Your task to perform on an android device: open app "Adobe Acrobat Reader" (install if not already installed) and go to login screen Image 0: 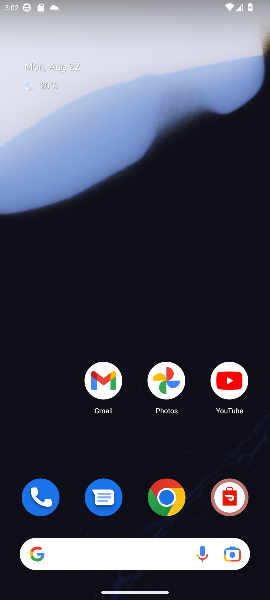
Step 0: drag from (63, 454) to (54, 71)
Your task to perform on an android device: open app "Adobe Acrobat Reader" (install if not already installed) and go to login screen Image 1: 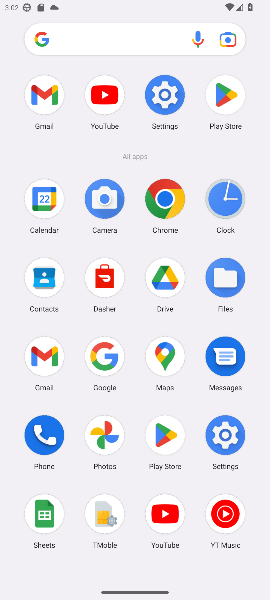
Step 1: click (160, 442)
Your task to perform on an android device: open app "Adobe Acrobat Reader" (install if not already installed) and go to login screen Image 2: 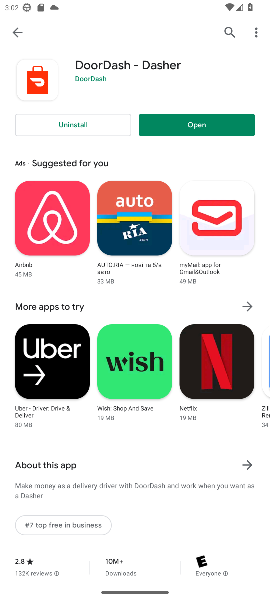
Step 2: click (21, 31)
Your task to perform on an android device: open app "Adobe Acrobat Reader" (install if not already installed) and go to login screen Image 3: 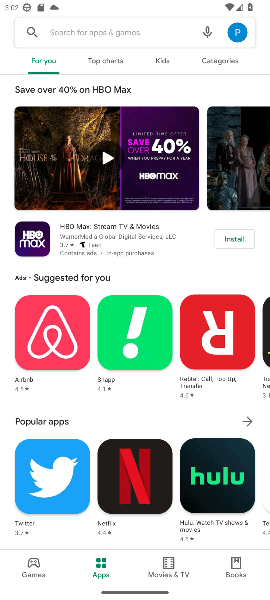
Step 3: click (129, 33)
Your task to perform on an android device: open app "Adobe Acrobat Reader" (install if not already installed) and go to login screen Image 4: 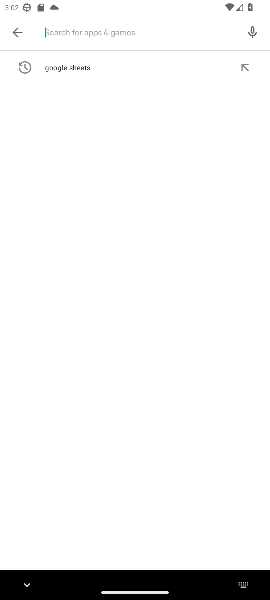
Step 4: type "Adobe Acrobat Reader"
Your task to perform on an android device: open app "Adobe Acrobat Reader" (install if not already installed) and go to login screen Image 5: 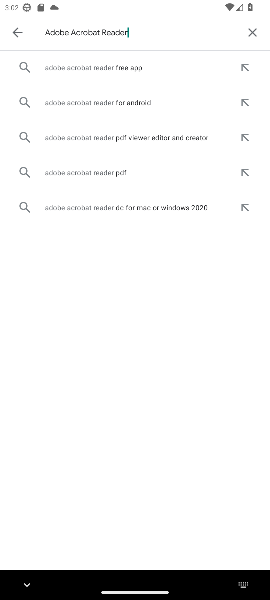
Step 5: click (108, 66)
Your task to perform on an android device: open app "Adobe Acrobat Reader" (install if not already installed) and go to login screen Image 6: 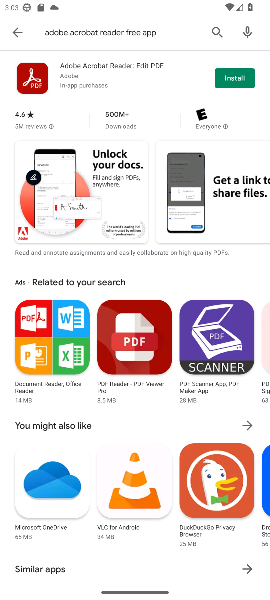
Step 6: click (231, 76)
Your task to perform on an android device: open app "Adobe Acrobat Reader" (install if not already installed) and go to login screen Image 7: 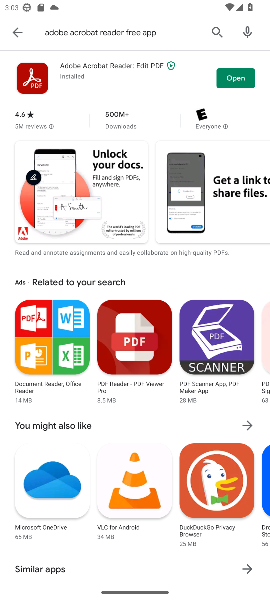
Step 7: click (245, 79)
Your task to perform on an android device: open app "Adobe Acrobat Reader" (install if not already installed) and go to login screen Image 8: 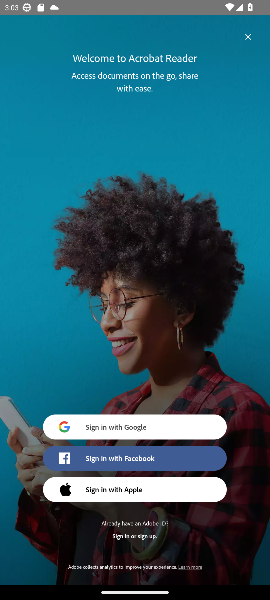
Step 8: task complete